Your task to perform on an android device: change the clock display to show seconds Image 0: 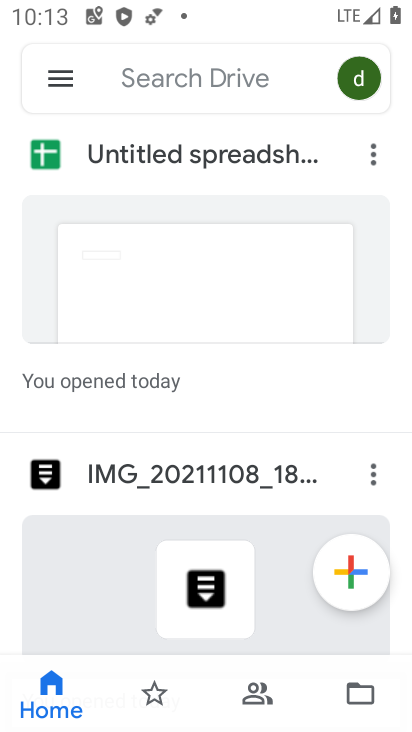
Step 0: press home button
Your task to perform on an android device: change the clock display to show seconds Image 1: 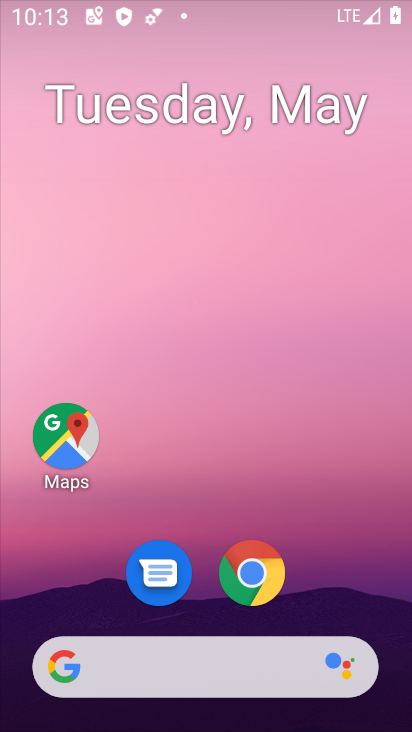
Step 1: drag from (135, 728) to (165, 169)
Your task to perform on an android device: change the clock display to show seconds Image 2: 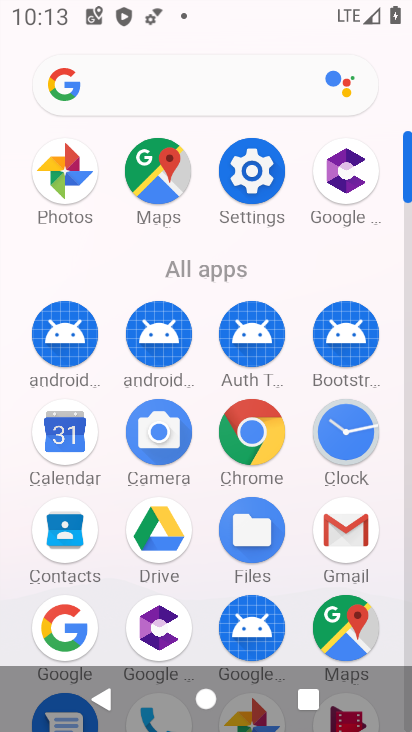
Step 2: click (348, 432)
Your task to perform on an android device: change the clock display to show seconds Image 3: 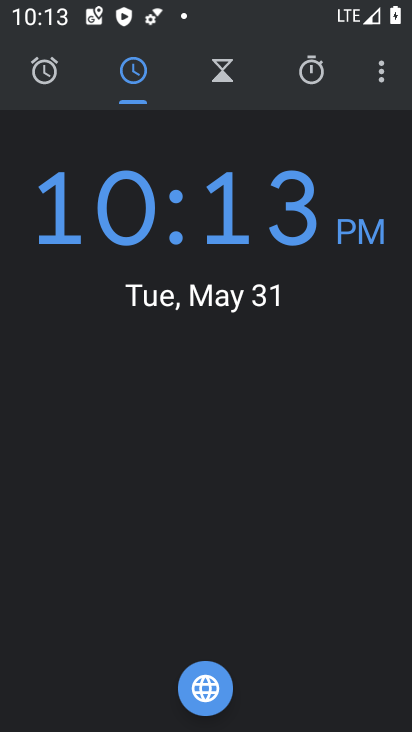
Step 3: click (379, 88)
Your task to perform on an android device: change the clock display to show seconds Image 4: 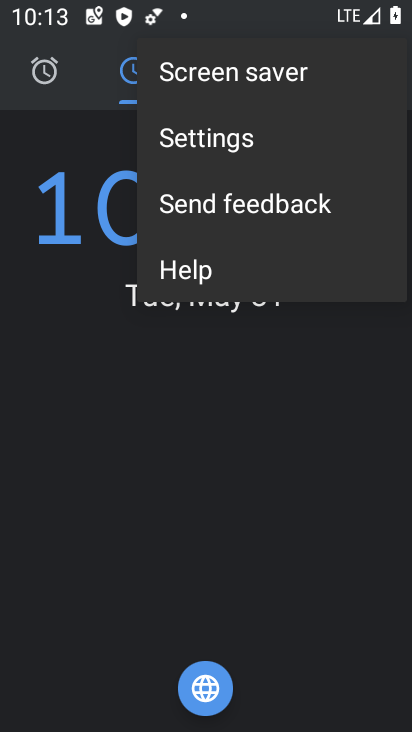
Step 4: click (202, 155)
Your task to perform on an android device: change the clock display to show seconds Image 5: 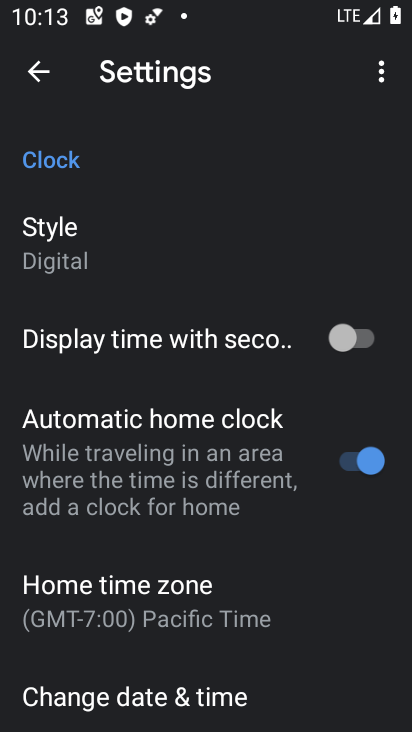
Step 5: click (103, 250)
Your task to perform on an android device: change the clock display to show seconds Image 6: 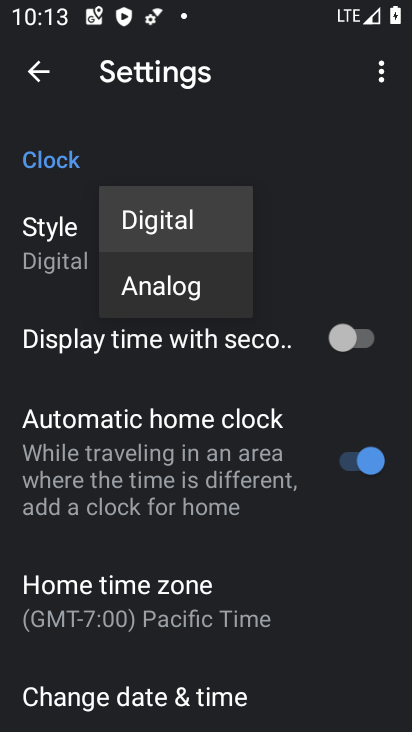
Step 6: click (345, 332)
Your task to perform on an android device: change the clock display to show seconds Image 7: 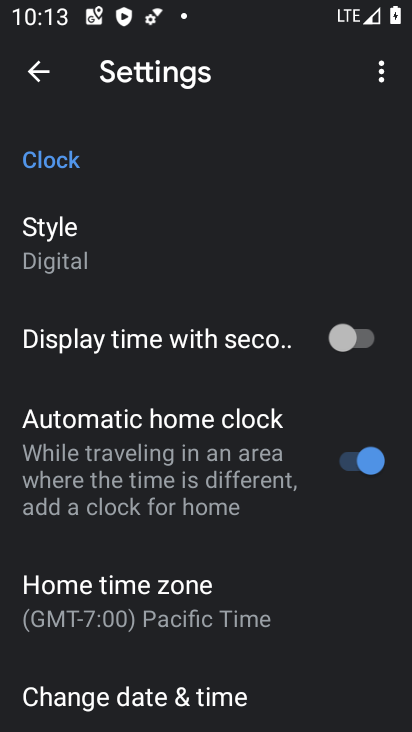
Step 7: click (349, 340)
Your task to perform on an android device: change the clock display to show seconds Image 8: 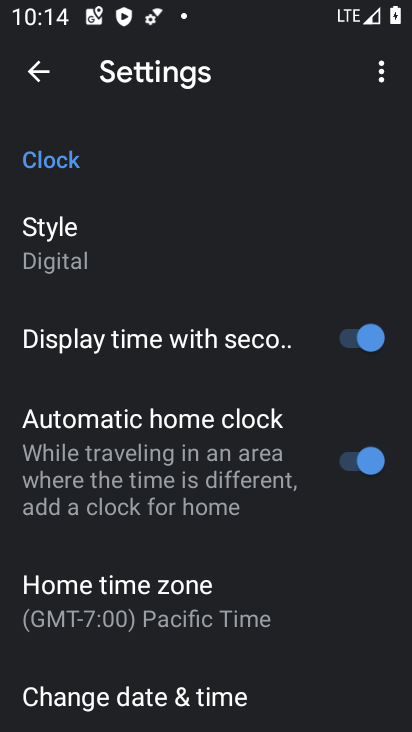
Step 8: task complete